Your task to perform on an android device: Show me productivity apps on the Play Store Image 0: 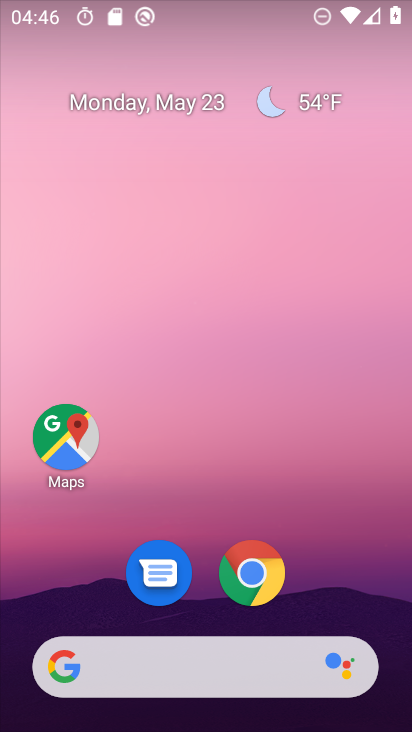
Step 0: drag from (328, 593) to (250, 61)
Your task to perform on an android device: Show me productivity apps on the Play Store Image 1: 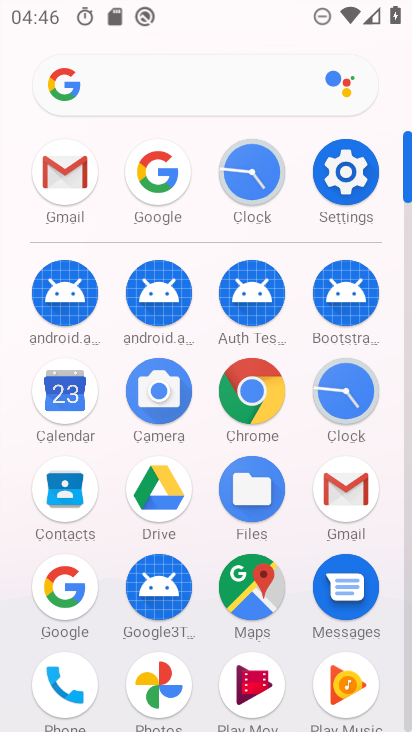
Step 1: drag from (224, 650) to (197, 299)
Your task to perform on an android device: Show me productivity apps on the Play Store Image 2: 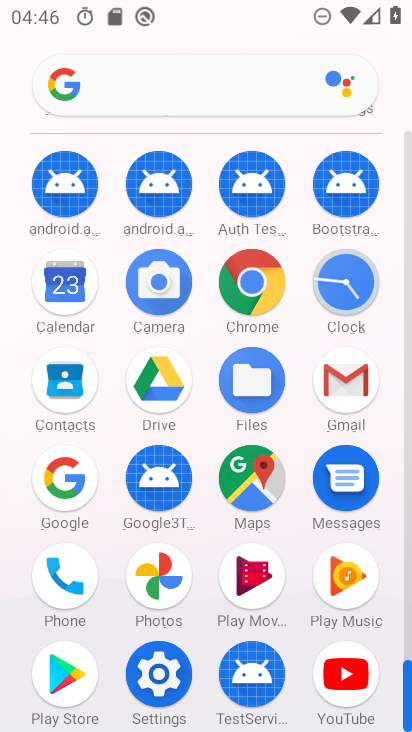
Step 2: click (63, 677)
Your task to perform on an android device: Show me productivity apps on the Play Store Image 3: 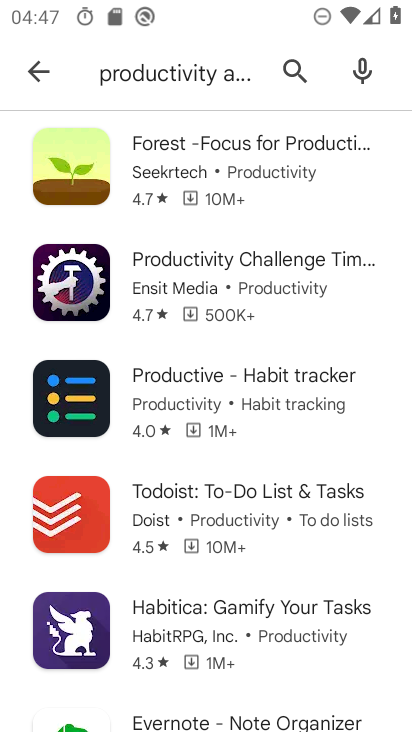
Step 3: task complete